Your task to perform on an android device: turn on sleep mode Image 0: 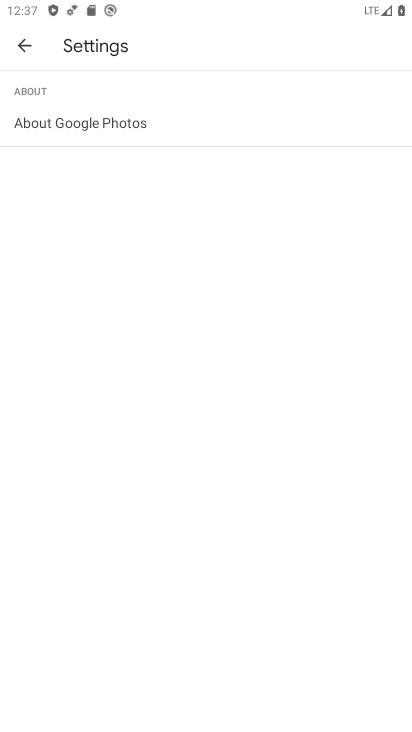
Step 0: press home button
Your task to perform on an android device: turn on sleep mode Image 1: 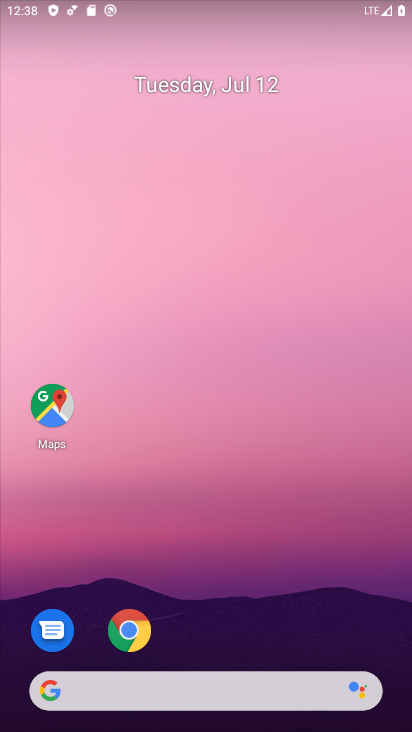
Step 1: drag from (305, 624) to (266, 208)
Your task to perform on an android device: turn on sleep mode Image 2: 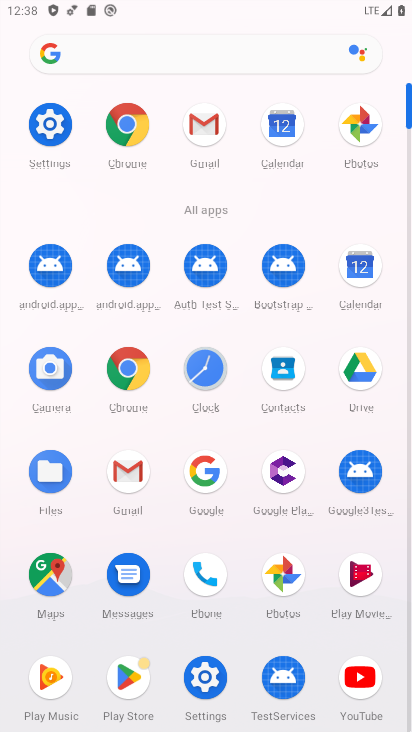
Step 2: click (47, 121)
Your task to perform on an android device: turn on sleep mode Image 3: 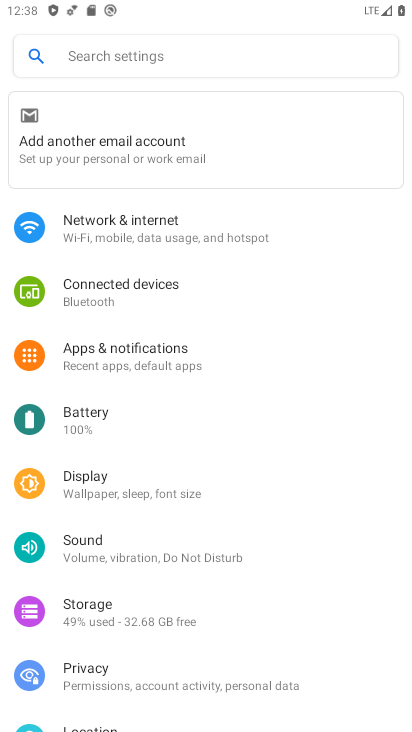
Step 3: click (194, 489)
Your task to perform on an android device: turn on sleep mode Image 4: 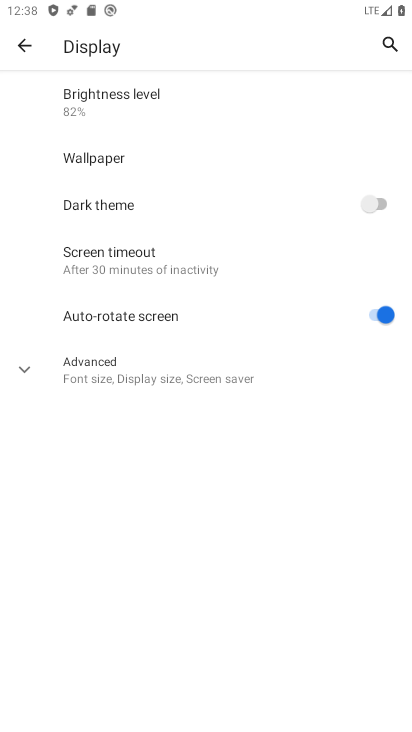
Step 4: click (187, 359)
Your task to perform on an android device: turn on sleep mode Image 5: 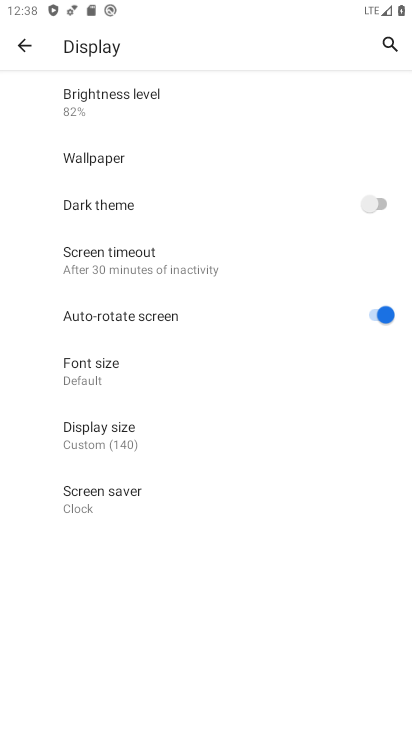
Step 5: task complete